Your task to perform on an android device: Open Maps and search for coffee Image 0: 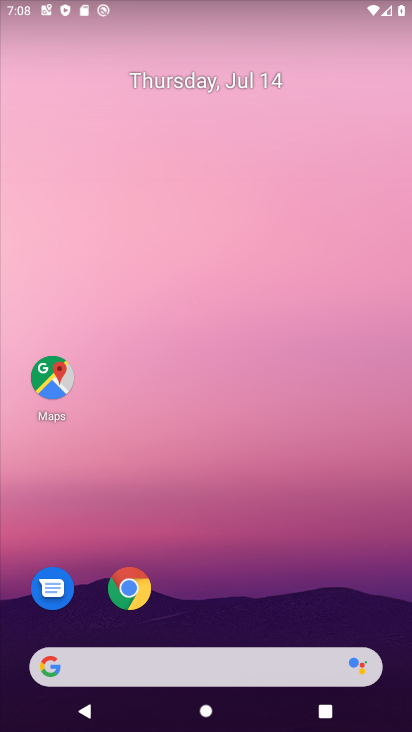
Step 0: drag from (375, 610) to (176, 4)
Your task to perform on an android device: Open Maps and search for coffee Image 1: 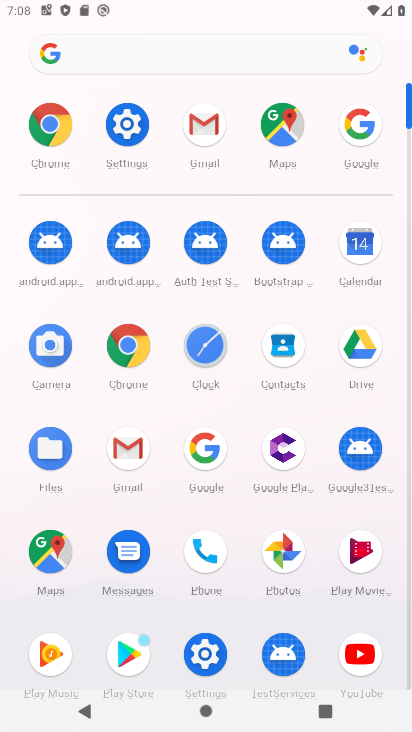
Step 1: click (17, 559)
Your task to perform on an android device: Open Maps and search for coffee Image 2: 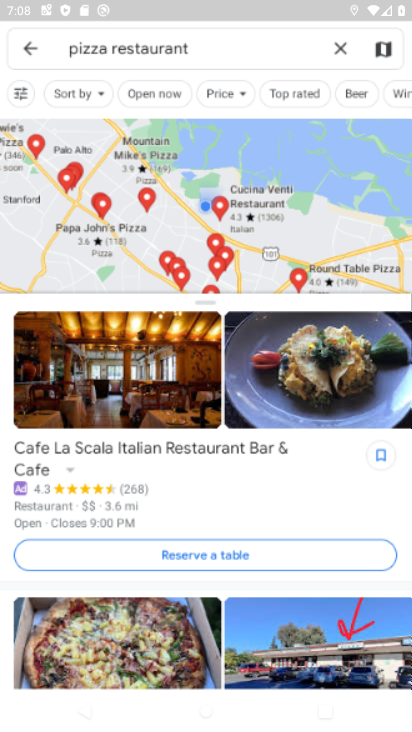
Step 2: click (345, 58)
Your task to perform on an android device: Open Maps and search for coffee Image 3: 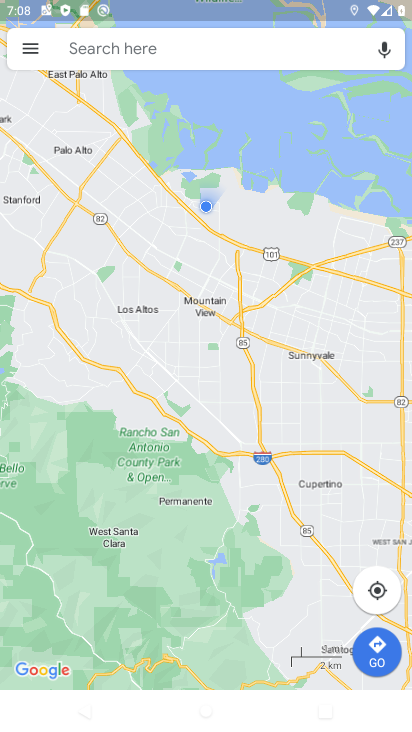
Step 3: click (97, 43)
Your task to perform on an android device: Open Maps and search for coffee Image 4: 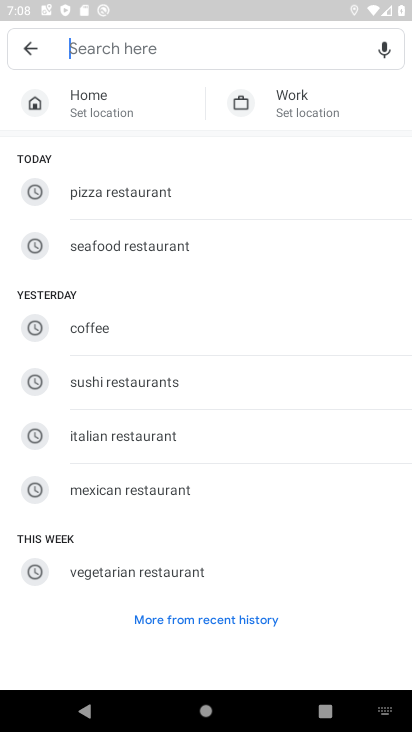
Step 4: click (100, 325)
Your task to perform on an android device: Open Maps and search for coffee Image 5: 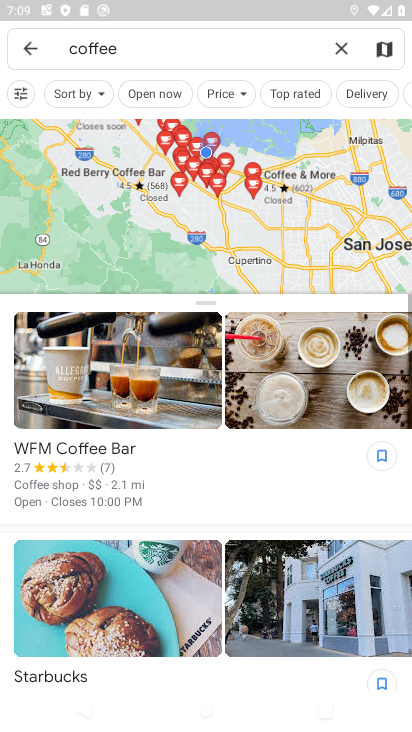
Step 5: task complete